Your task to perform on an android device: What's the weather going to be this weekend? Image 0: 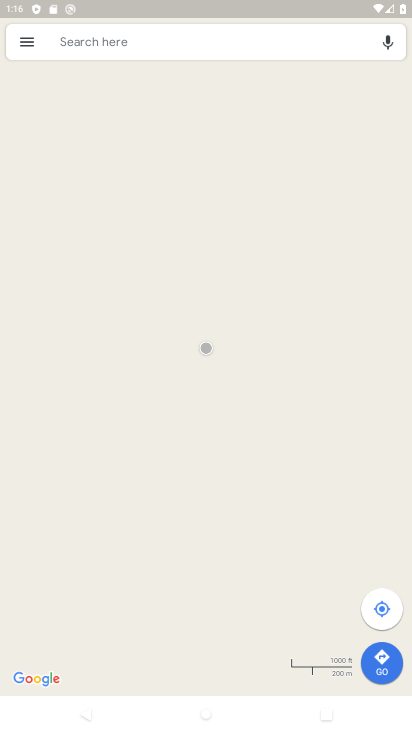
Step 0: press home button
Your task to perform on an android device: What's the weather going to be this weekend? Image 1: 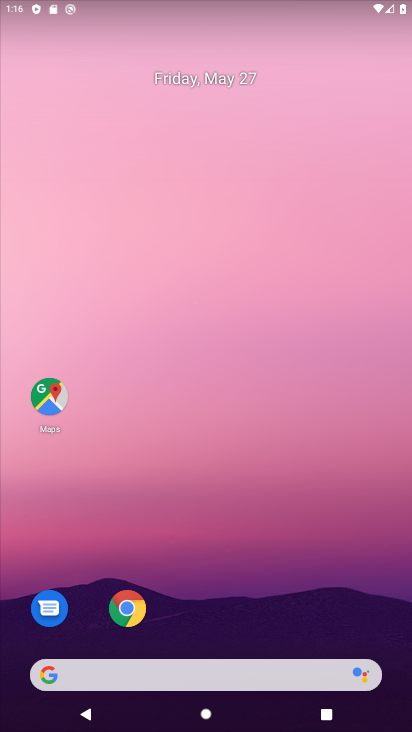
Step 1: click (178, 667)
Your task to perform on an android device: What's the weather going to be this weekend? Image 2: 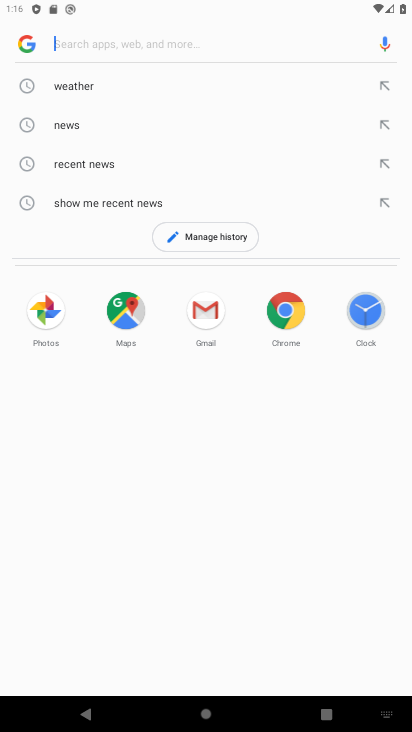
Step 2: click (73, 79)
Your task to perform on an android device: What's the weather going to be this weekend? Image 3: 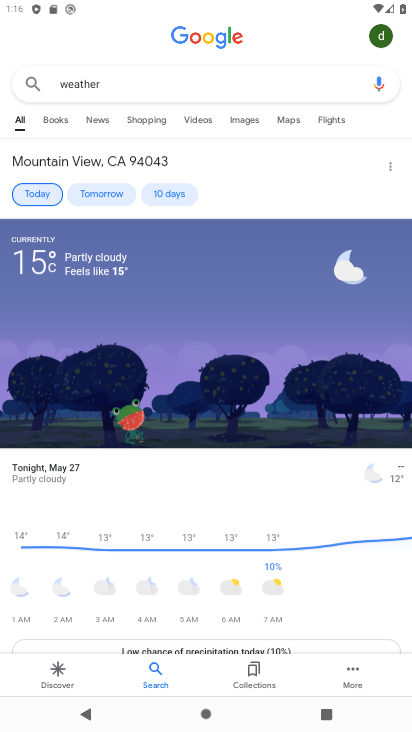
Step 3: click (167, 192)
Your task to perform on an android device: What's the weather going to be this weekend? Image 4: 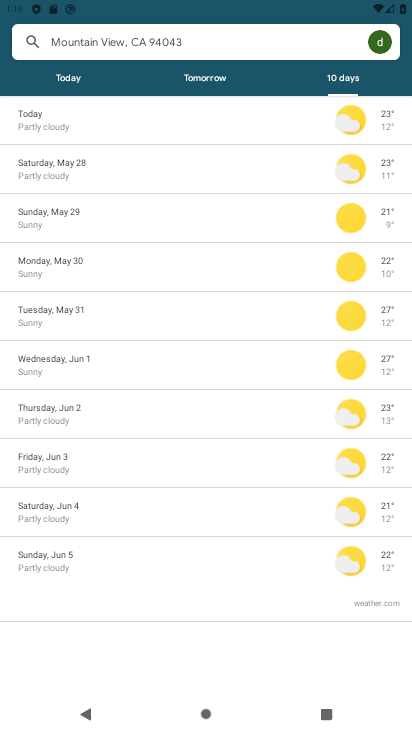
Step 4: task complete